Your task to perform on an android device: Show me productivity apps on the Play Store Image 0: 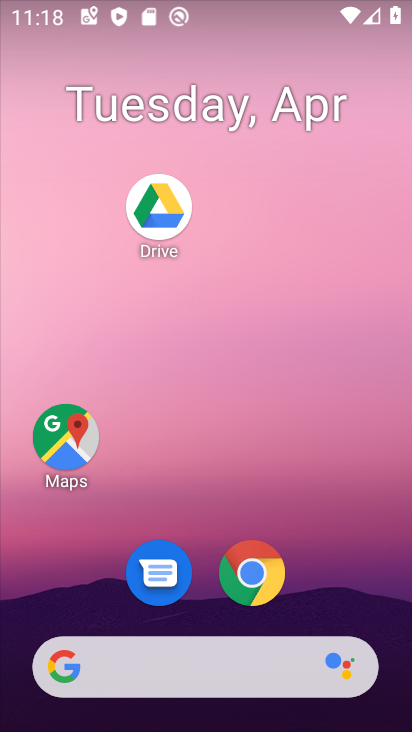
Step 0: drag from (343, 584) to (370, 107)
Your task to perform on an android device: Show me productivity apps on the Play Store Image 1: 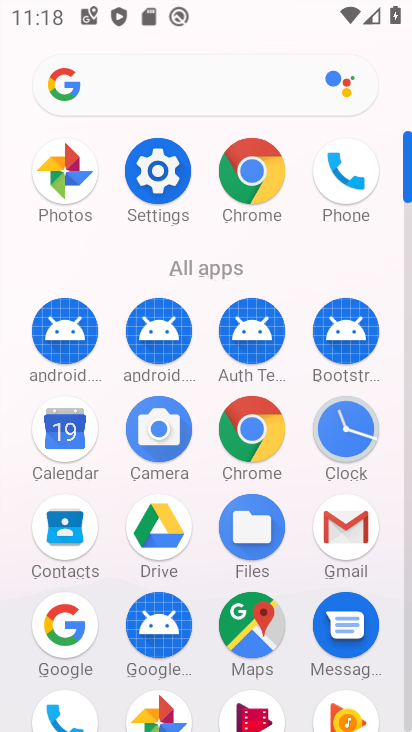
Step 1: drag from (288, 664) to (295, 340)
Your task to perform on an android device: Show me productivity apps on the Play Store Image 2: 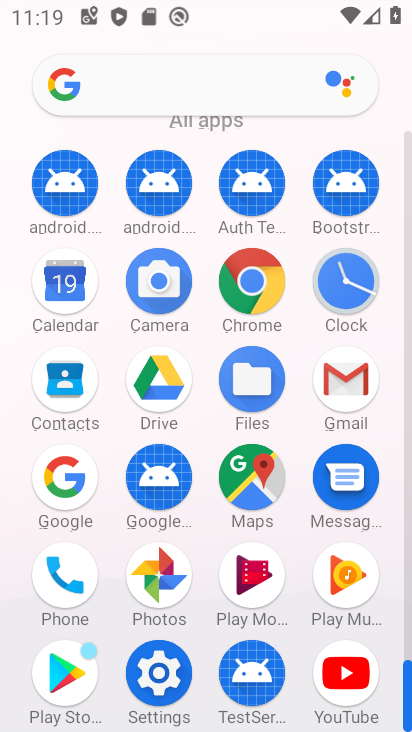
Step 2: click (66, 682)
Your task to perform on an android device: Show me productivity apps on the Play Store Image 3: 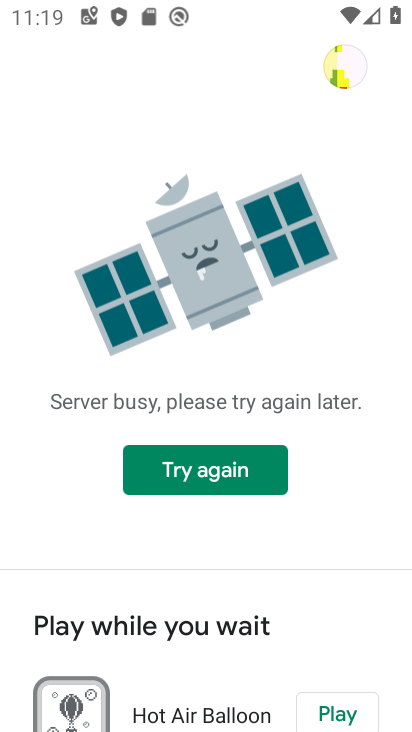
Step 3: task complete